Your task to perform on an android device: Search for pizza restaurants on Maps Image 0: 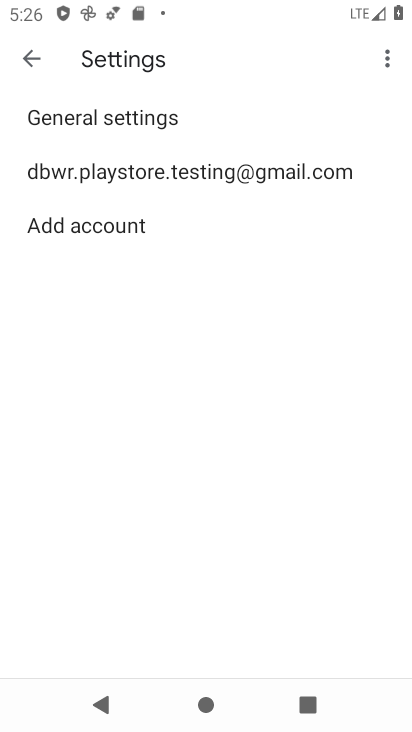
Step 0: press back button
Your task to perform on an android device: Search for pizza restaurants on Maps Image 1: 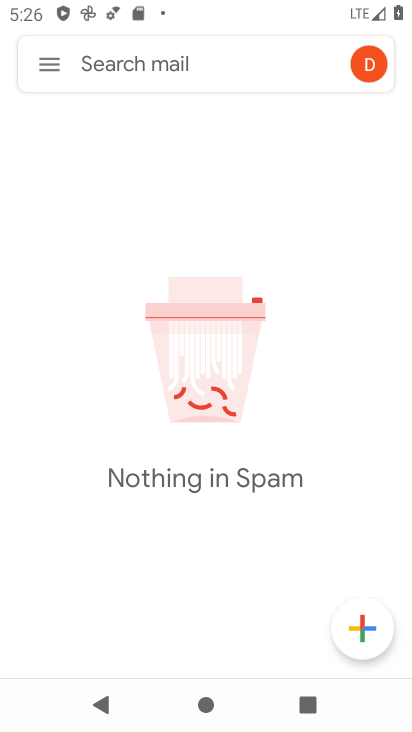
Step 1: press home button
Your task to perform on an android device: Search for pizza restaurants on Maps Image 2: 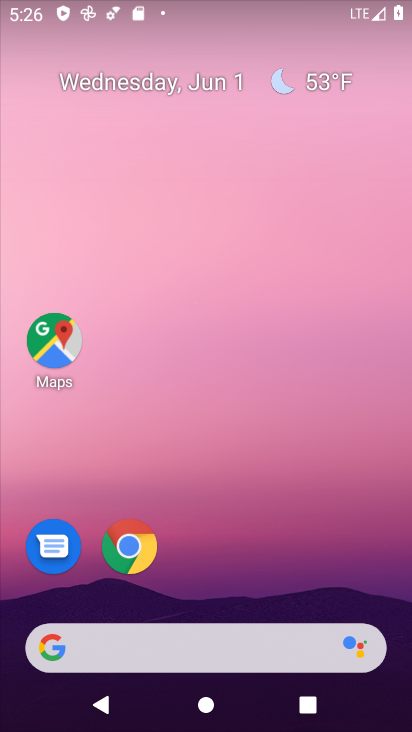
Step 2: drag from (244, 487) to (241, 26)
Your task to perform on an android device: Search for pizza restaurants on Maps Image 3: 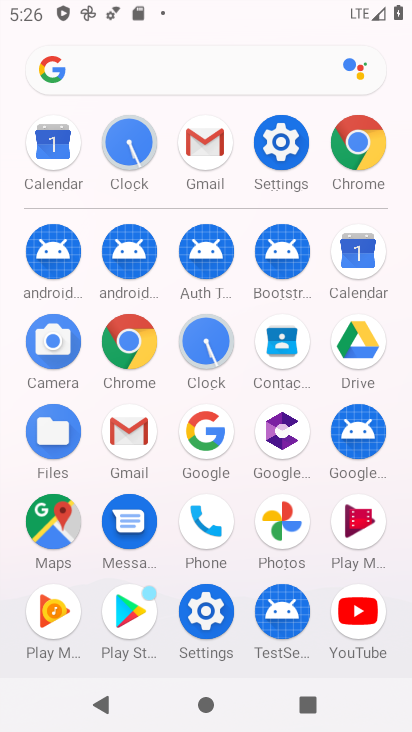
Step 3: click (52, 521)
Your task to perform on an android device: Search for pizza restaurants on Maps Image 4: 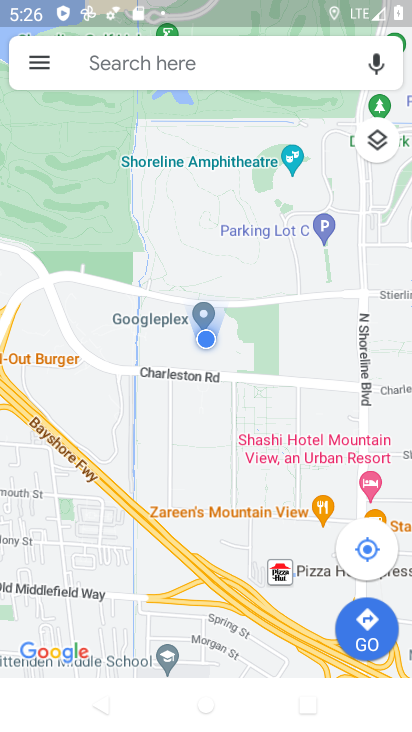
Step 4: click (225, 58)
Your task to perform on an android device: Search for pizza restaurants on Maps Image 5: 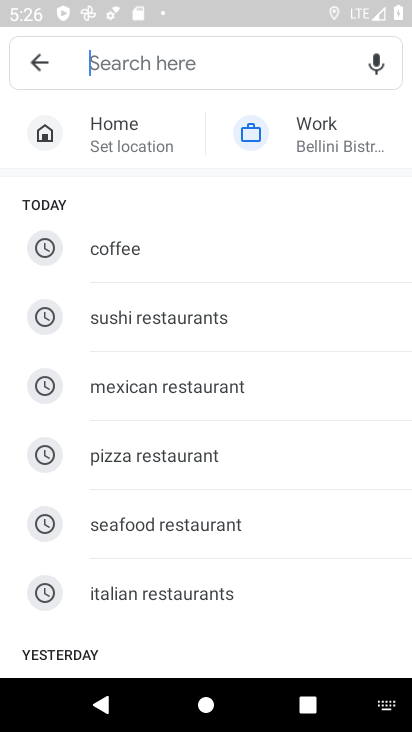
Step 5: click (149, 472)
Your task to perform on an android device: Search for pizza restaurants on Maps Image 6: 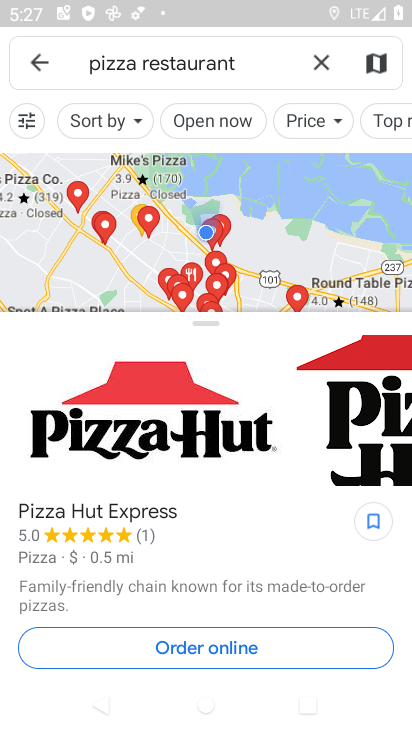
Step 6: task complete